Your task to perform on an android device: change the clock display to show seconds Image 0: 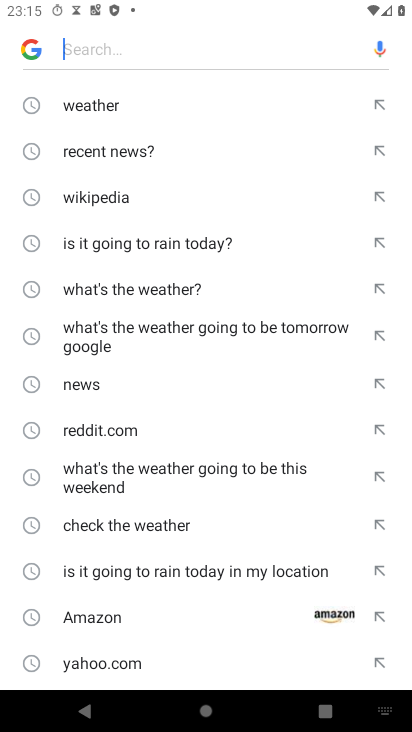
Step 0: press home button
Your task to perform on an android device: change the clock display to show seconds Image 1: 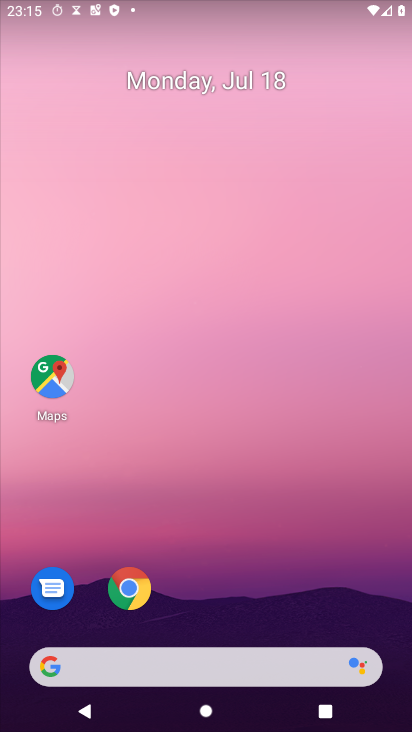
Step 1: drag from (189, 667) to (319, 99)
Your task to perform on an android device: change the clock display to show seconds Image 2: 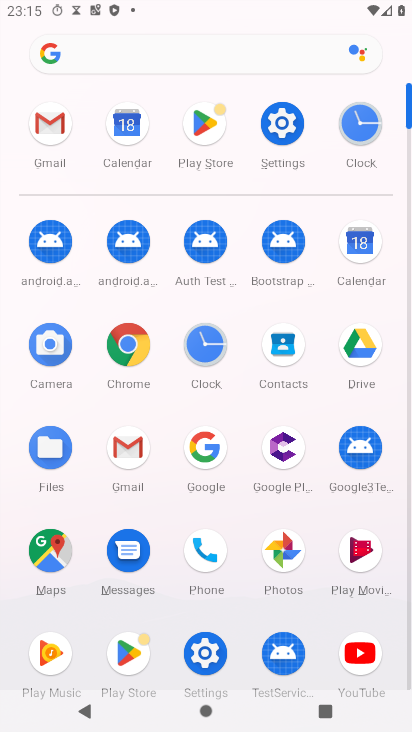
Step 2: click (198, 351)
Your task to perform on an android device: change the clock display to show seconds Image 3: 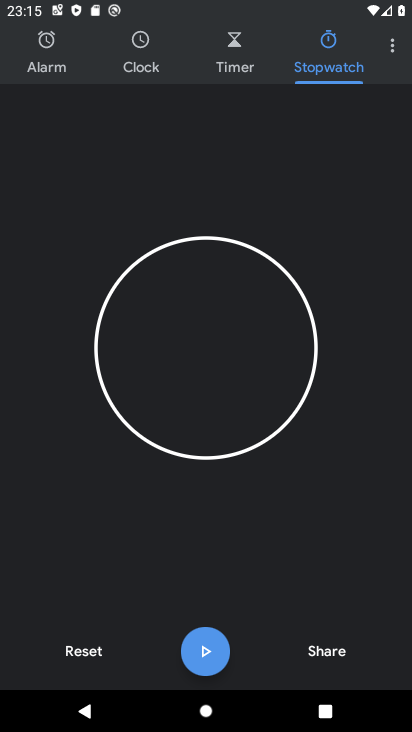
Step 3: click (392, 49)
Your task to perform on an android device: change the clock display to show seconds Image 4: 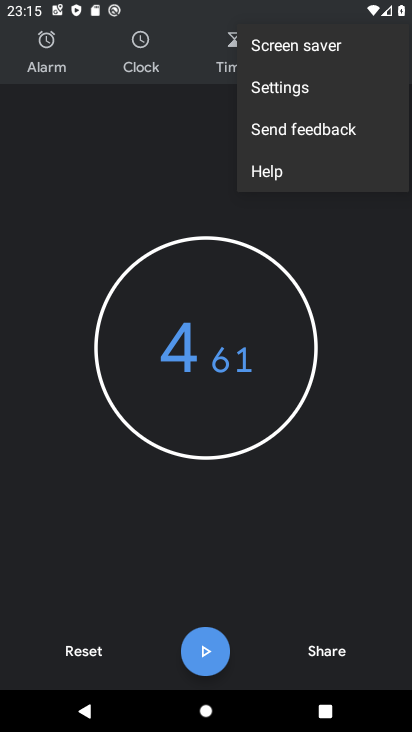
Step 4: click (297, 91)
Your task to perform on an android device: change the clock display to show seconds Image 5: 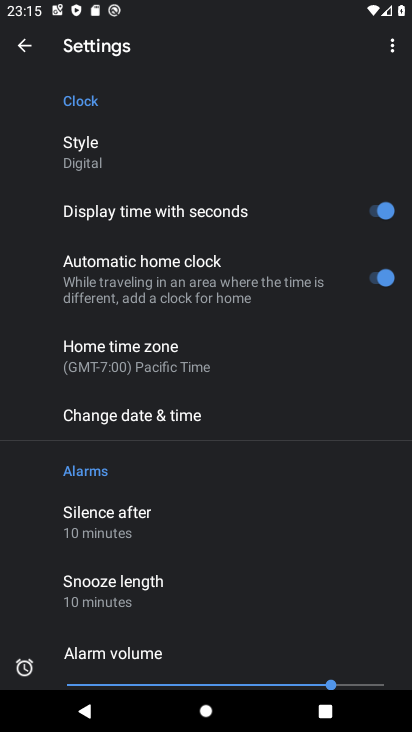
Step 5: task complete